Your task to perform on an android device: turn off data saver in the chrome app Image 0: 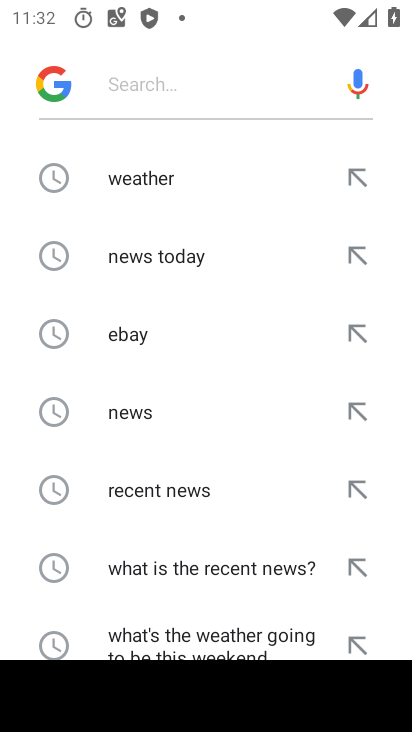
Step 0: press back button
Your task to perform on an android device: turn off data saver in the chrome app Image 1: 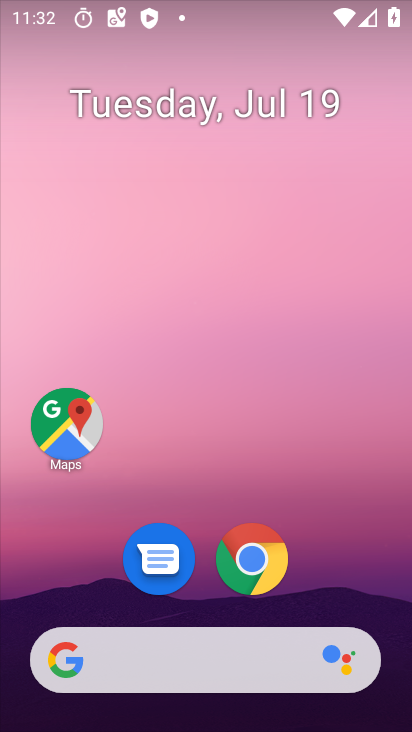
Step 1: click (266, 566)
Your task to perform on an android device: turn off data saver in the chrome app Image 2: 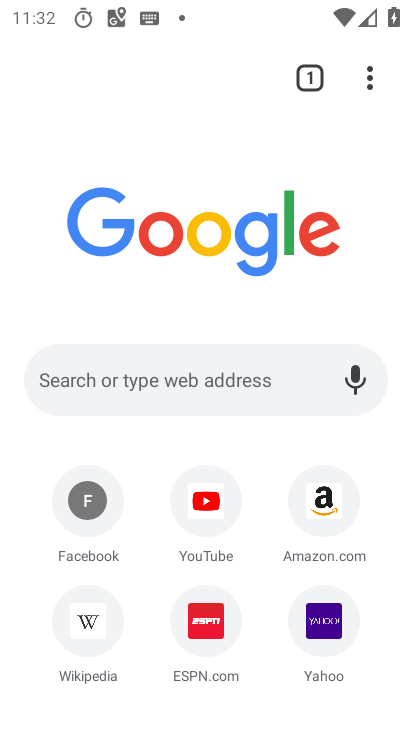
Step 2: drag from (375, 70) to (160, 641)
Your task to perform on an android device: turn off data saver in the chrome app Image 3: 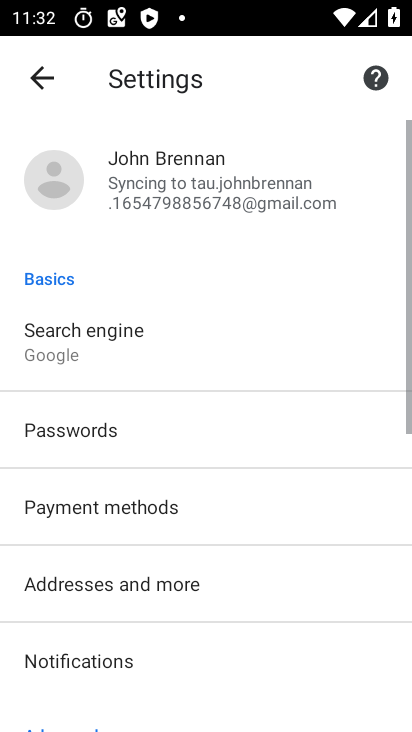
Step 3: drag from (171, 629) to (266, 8)
Your task to perform on an android device: turn off data saver in the chrome app Image 4: 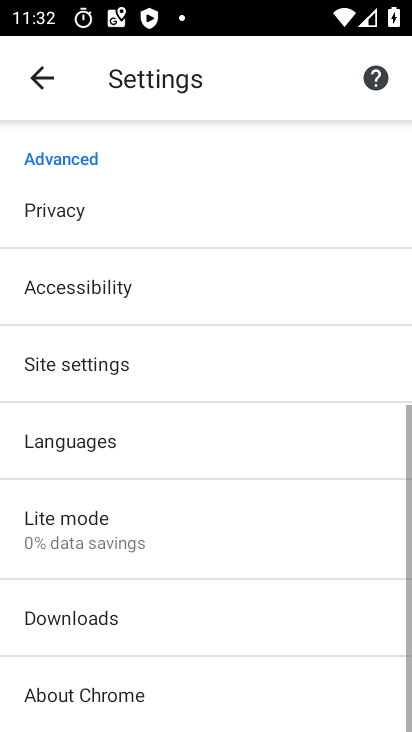
Step 4: click (128, 520)
Your task to perform on an android device: turn off data saver in the chrome app Image 5: 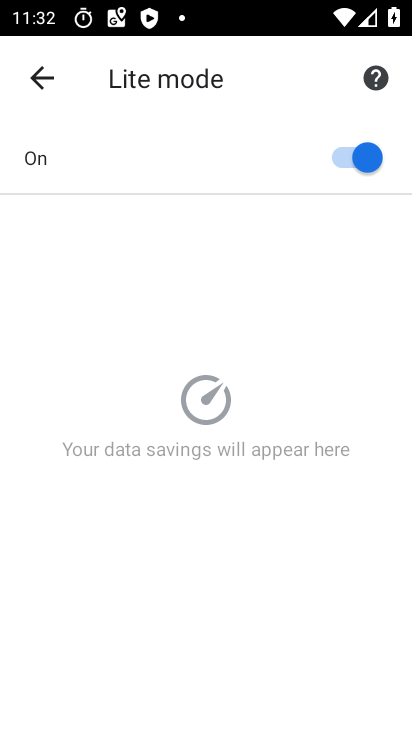
Step 5: click (365, 158)
Your task to perform on an android device: turn off data saver in the chrome app Image 6: 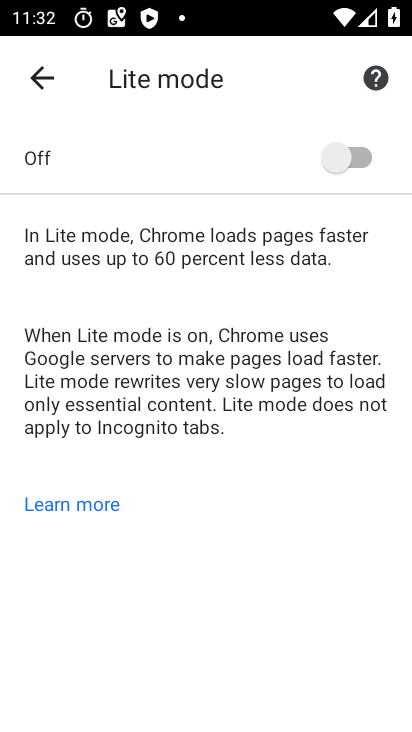
Step 6: task complete